Your task to perform on an android device: Open the calendar and show me this week's events? Image 0: 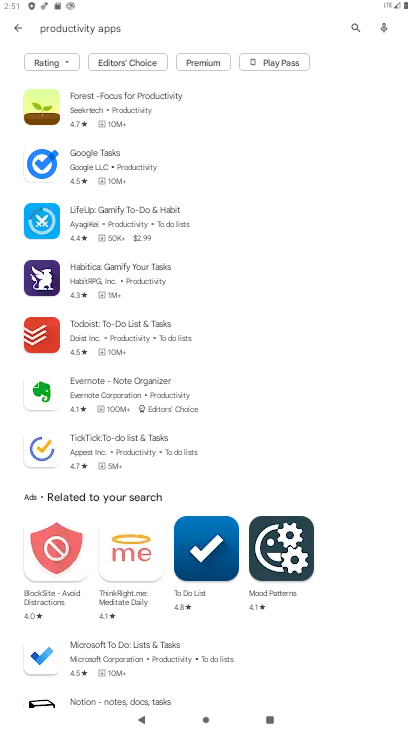
Step 0: press home button
Your task to perform on an android device: Open the calendar and show me this week's events? Image 1: 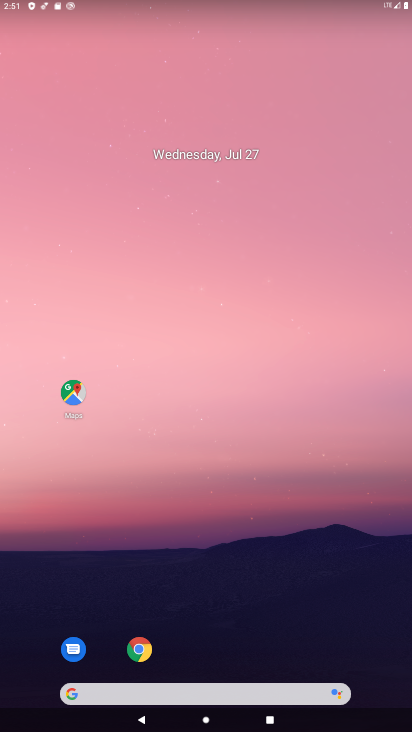
Step 1: drag from (237, 645) to (288, 131)
Your task to perform on an android device: Open the calendar and show me this week's events? Image 2: 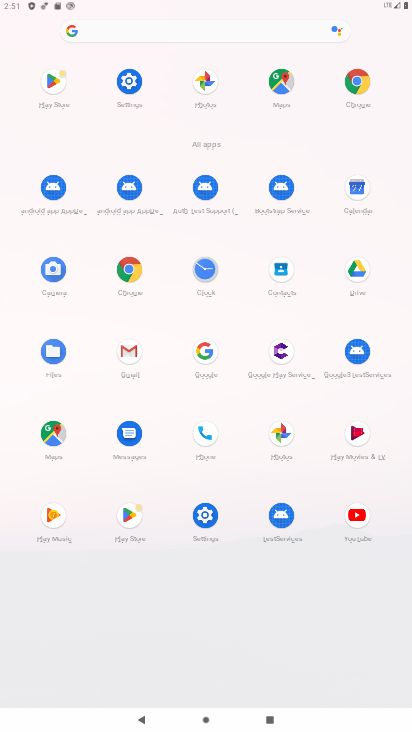
Step 2: click (358, 190)
Your task to perform on an android device: Open the calendar and show me this week's events? Image 3: 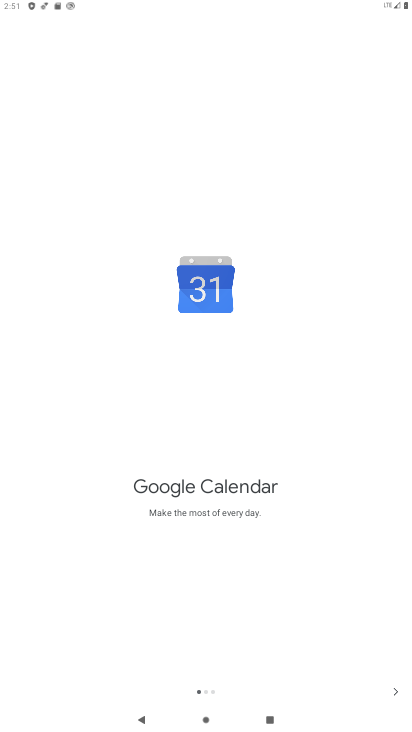
Step 3: click (396, 681)
Your task to perform on an android device: Open the calendar and show me this week's events? Image 4: 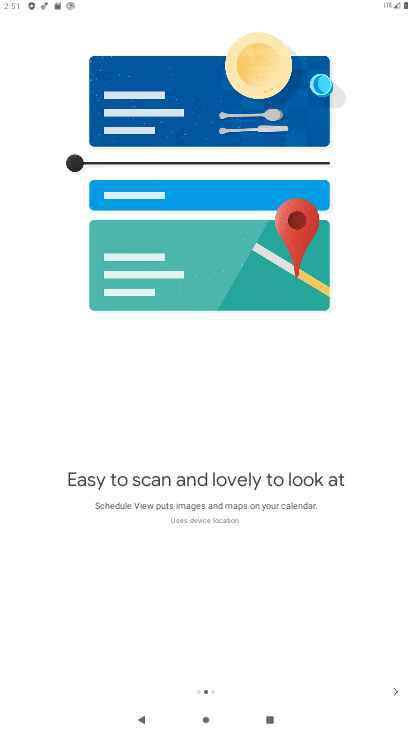
Step 4: click (396, 681)
Your task to perform on an android device: Open the calendar and show me this week's events? Image 5: 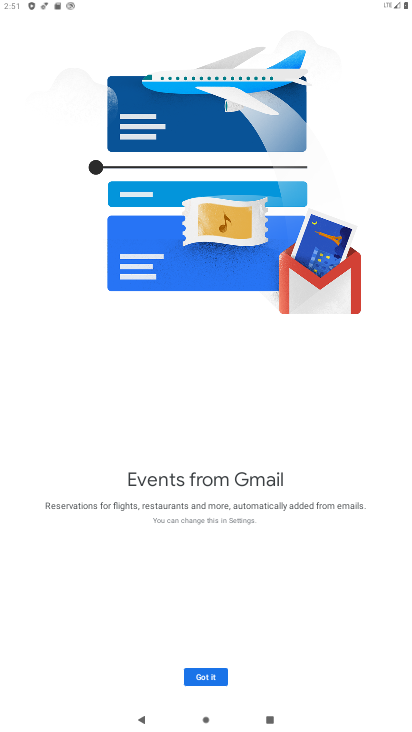
Step 5: click (212, 674)
Your task to perform on an android device: Open the calendar and show me this week's events? Image 6: 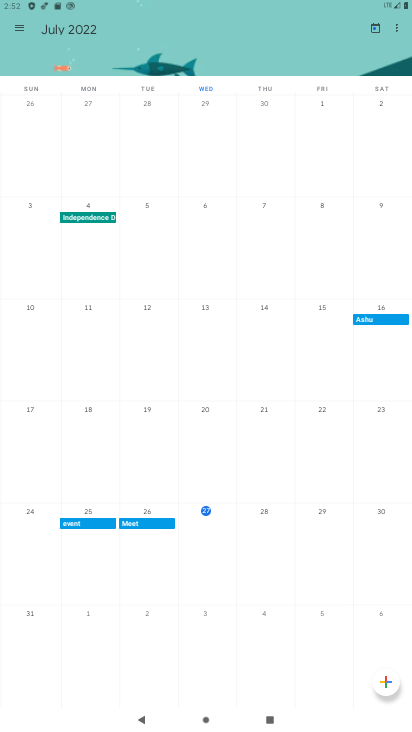
Step 6: click (199, 506)
Your task to perform on an android device: Open the calendar and show me this week's events? Image 7: 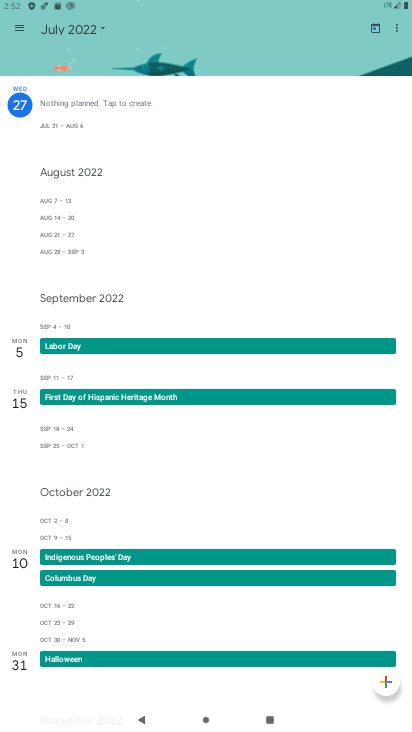
Step 7: task complete